Your task to perform on an android device: Open settings on Google Maps Image 0: 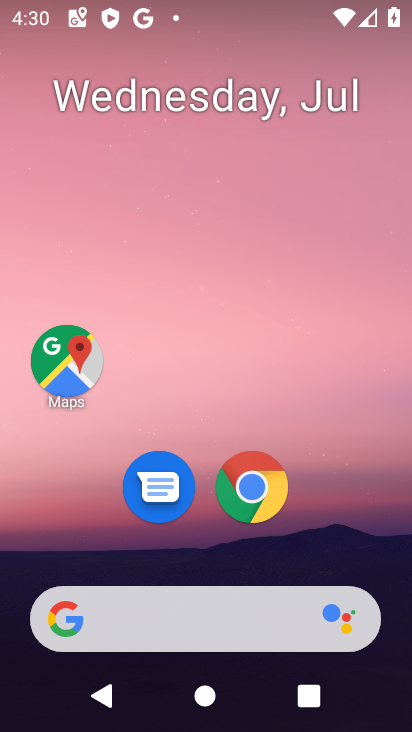
Step 0: click (81, 360)
Your task to perform on an android device: Open settings on Google Maps Image 1: 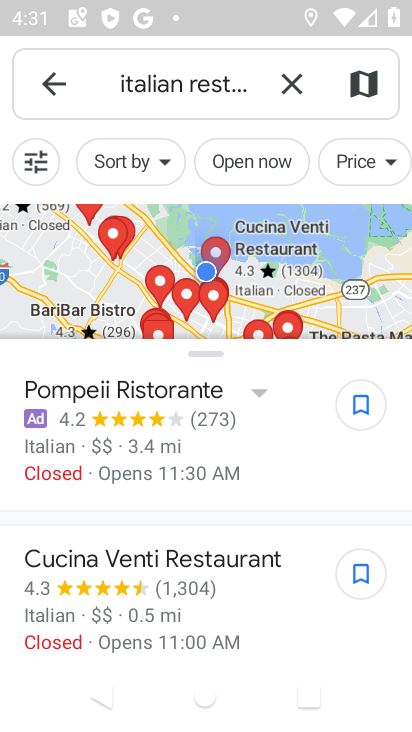
Step 1: task complete